Your task to perform on an android device: toggle wifi Image 0: 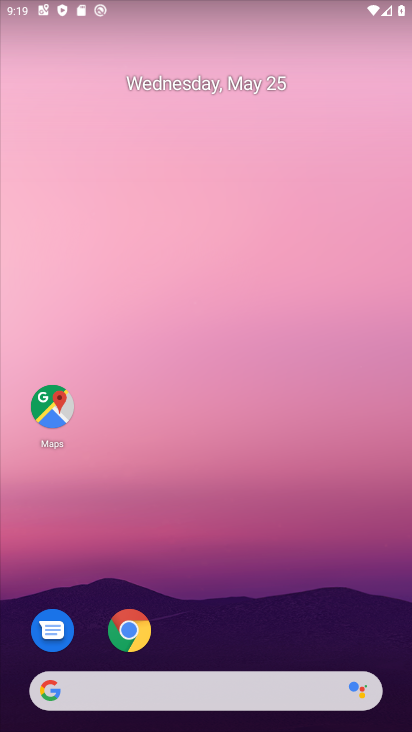
Step 0: drag from (128, 6) to (131, 503)
Your task to perform on an android device: toggle wifi Image 1: 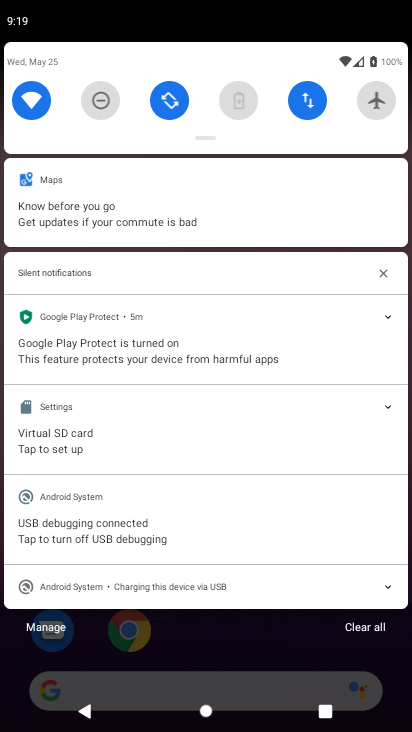
Step 1: click (34, 103)
Your task to perform on an android device: toggle wifi Image 2: 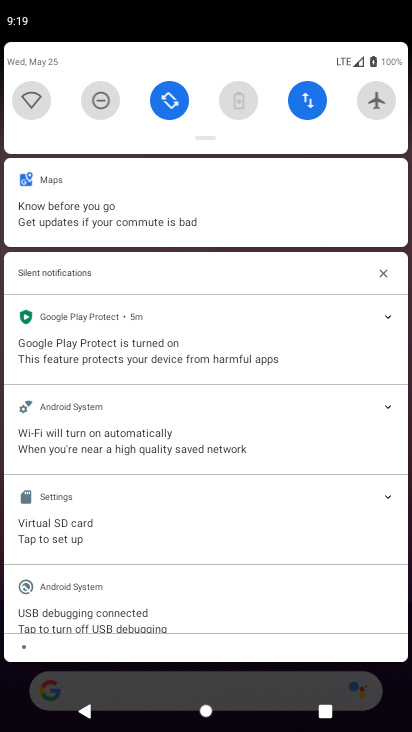
Step 2: task complete